Your task to perform on an android device: turn on wifi Image 0: 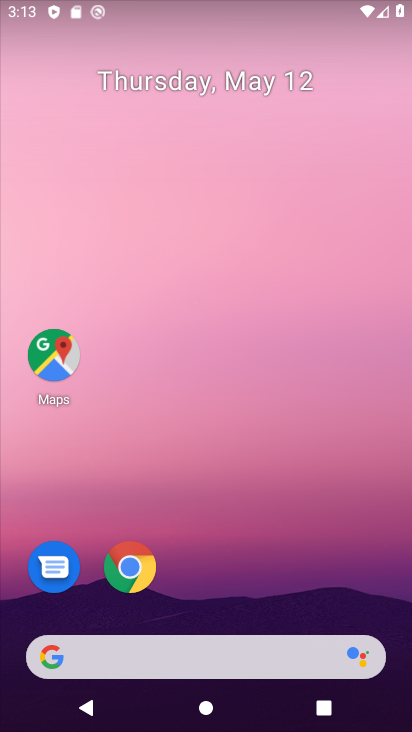
Step 0: drag from (203, 654) to (404, 8)
Your task to perform on an android device: turn on wifi Image 1: 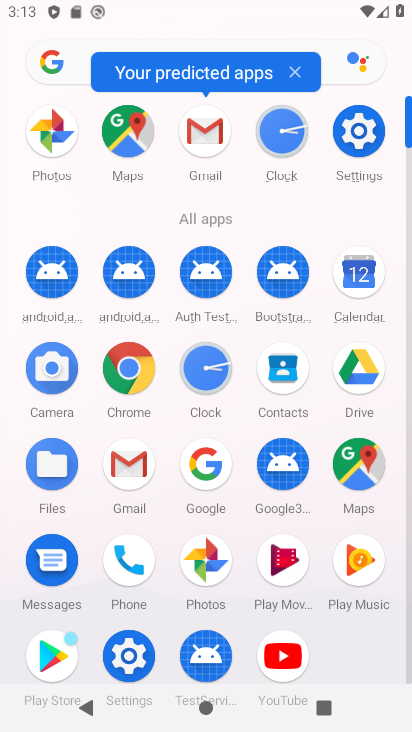
Step 1: click (138, 662)
Your task to perform on an android device: turn on wifi Image 2: 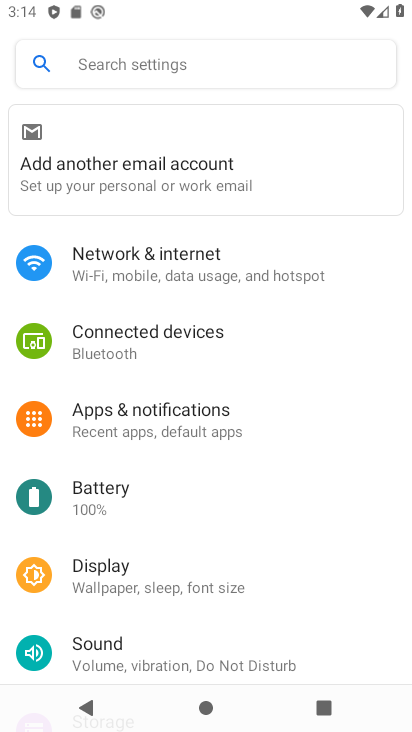
Step 2: click (224, 250)
Your task to perform on an android device: turn on wifi Image 3: 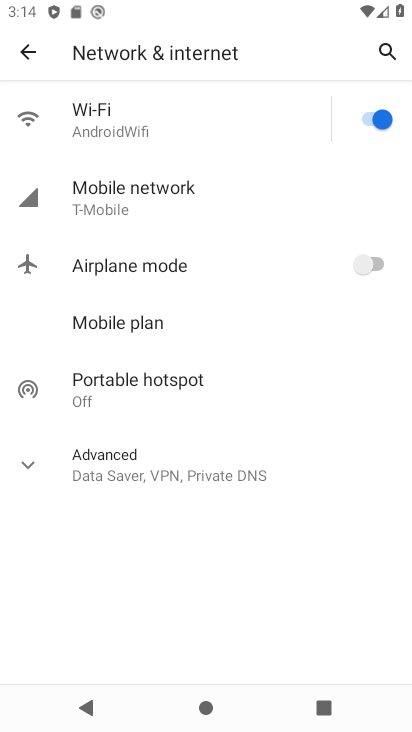
Step 3: task complete